Your task to perform on an android device: Search for Mexican restaurants on Maps Image 0: 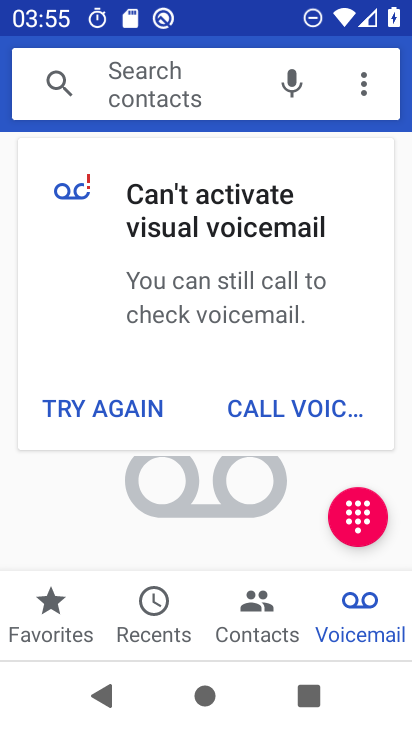
Step 0: press back button
Your task to perform on an android device: Search for Mexican restaurants on Maps Image 1: 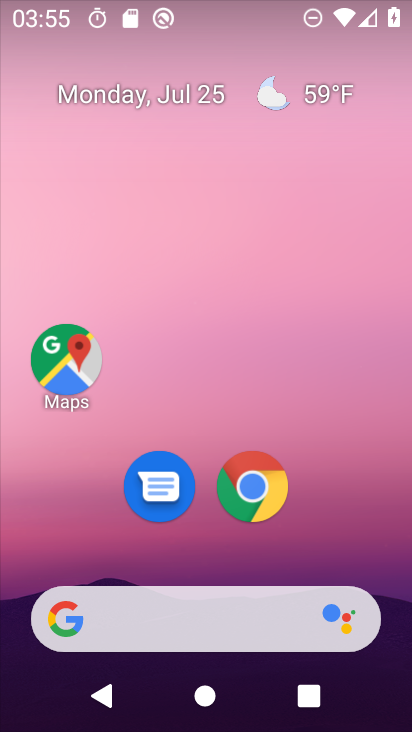
Step 1: click (84, 378)
Your task to perform on an android device: Search for Mexican restaurants on Maps Image 2: 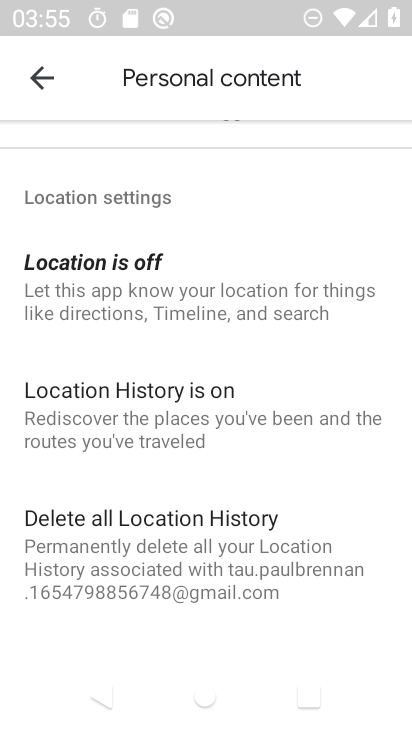
Step 2: click (43, 91)
Your task to perform on an android device: Search for Mexican restaurants on Maps Image 3: 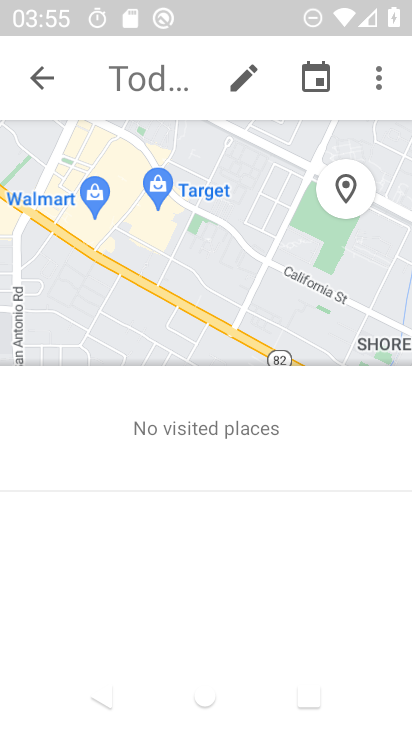
Step 3: click (43, 66)
Your task to perform on an android device: Search for Mexican restaurants on Maps Image 4: 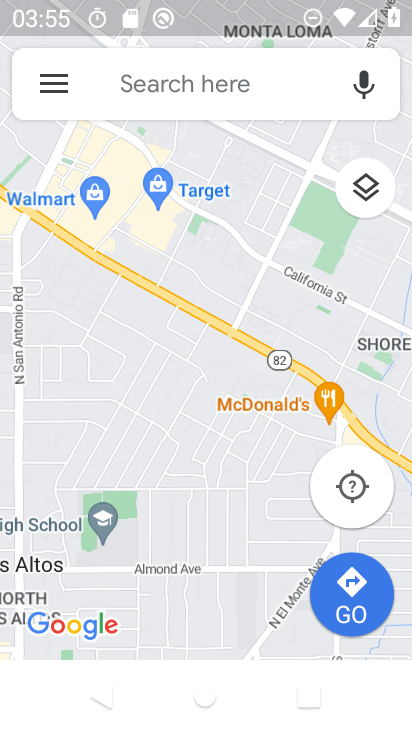
Step 4: click (143, 90)
Your task to perform on an android device: Search for Mexican restaurants on Maps Image 5: 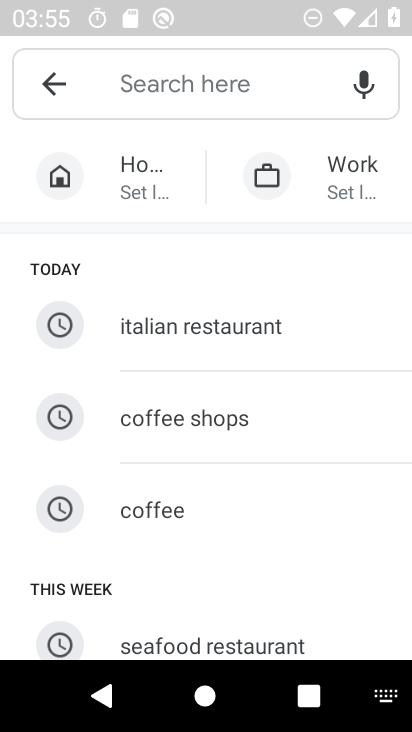
Step 5: drag from (189, 567) to (246, 230)
Your task to perform on an android device: Search for Mexican restaurants on Maps Image 6: 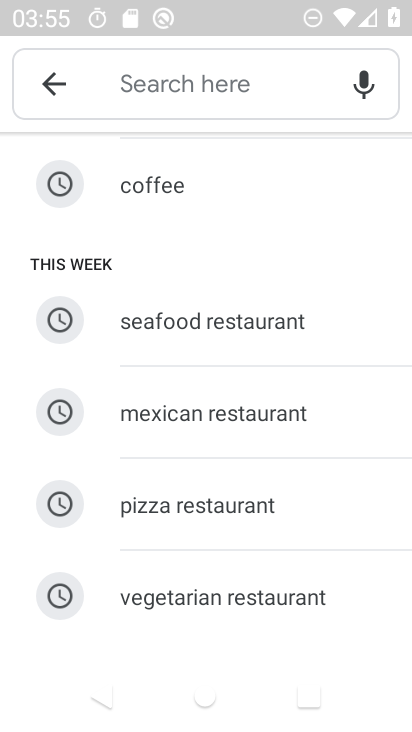
Step 6: click (167, 414)
Your task to perform on an android device: Search for Mexican restaurants on Maps Image 7: 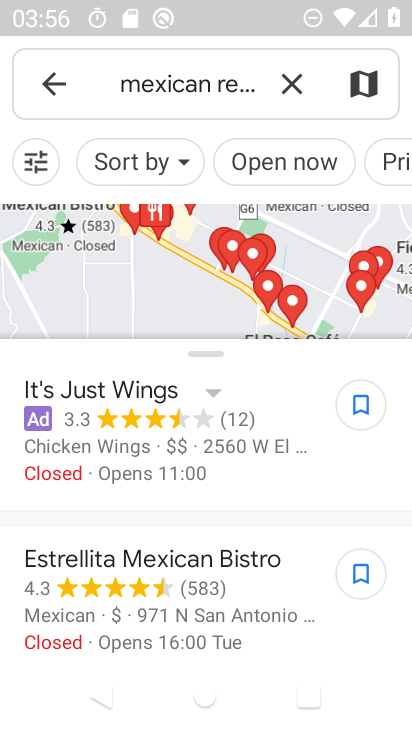
Step 7: task complete